Your task to perform on an android device: Add bose quietcomfort 35 to the cart on amazon.com Image 0: 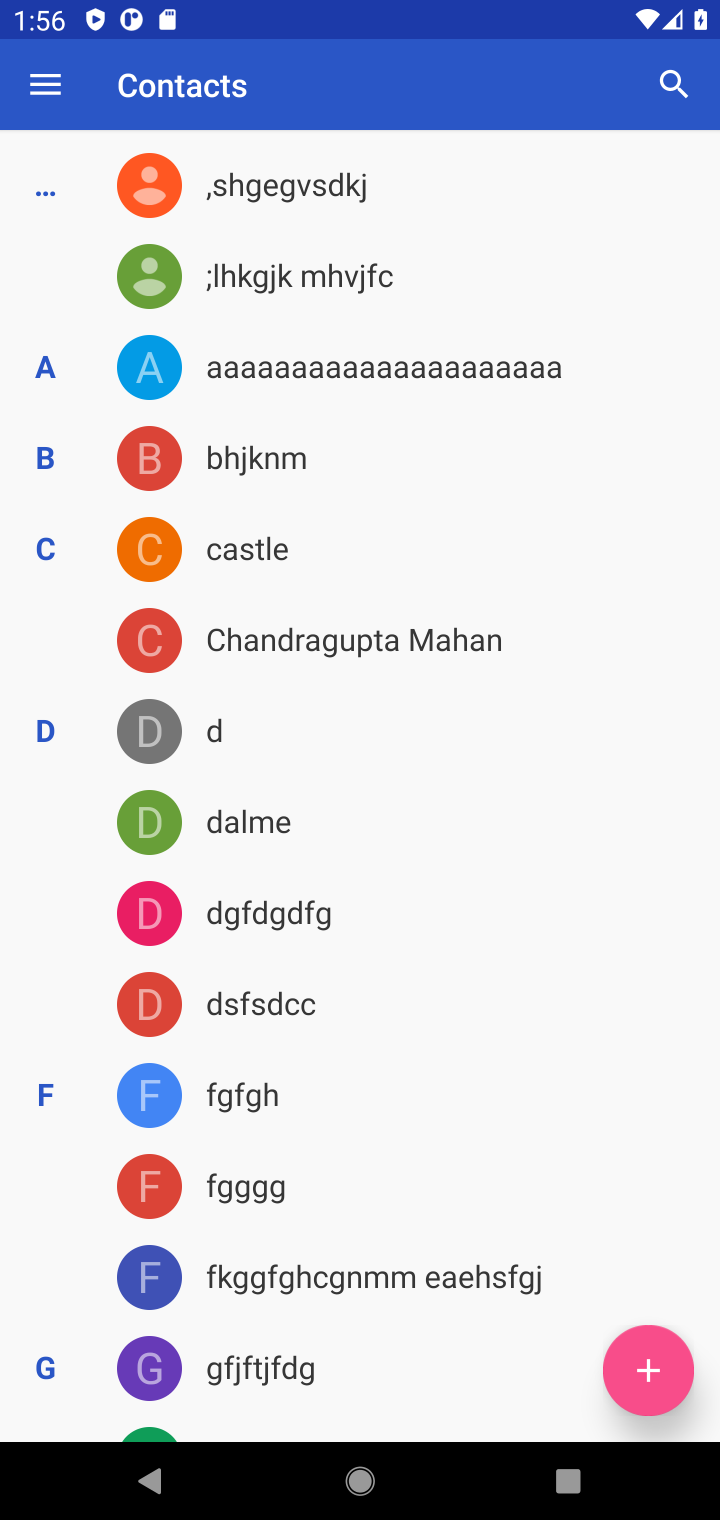
Step 0: press home button
Your task to perform on an android device: Add bose quietcomfort 35 to the cart on amazon.com Image 1: 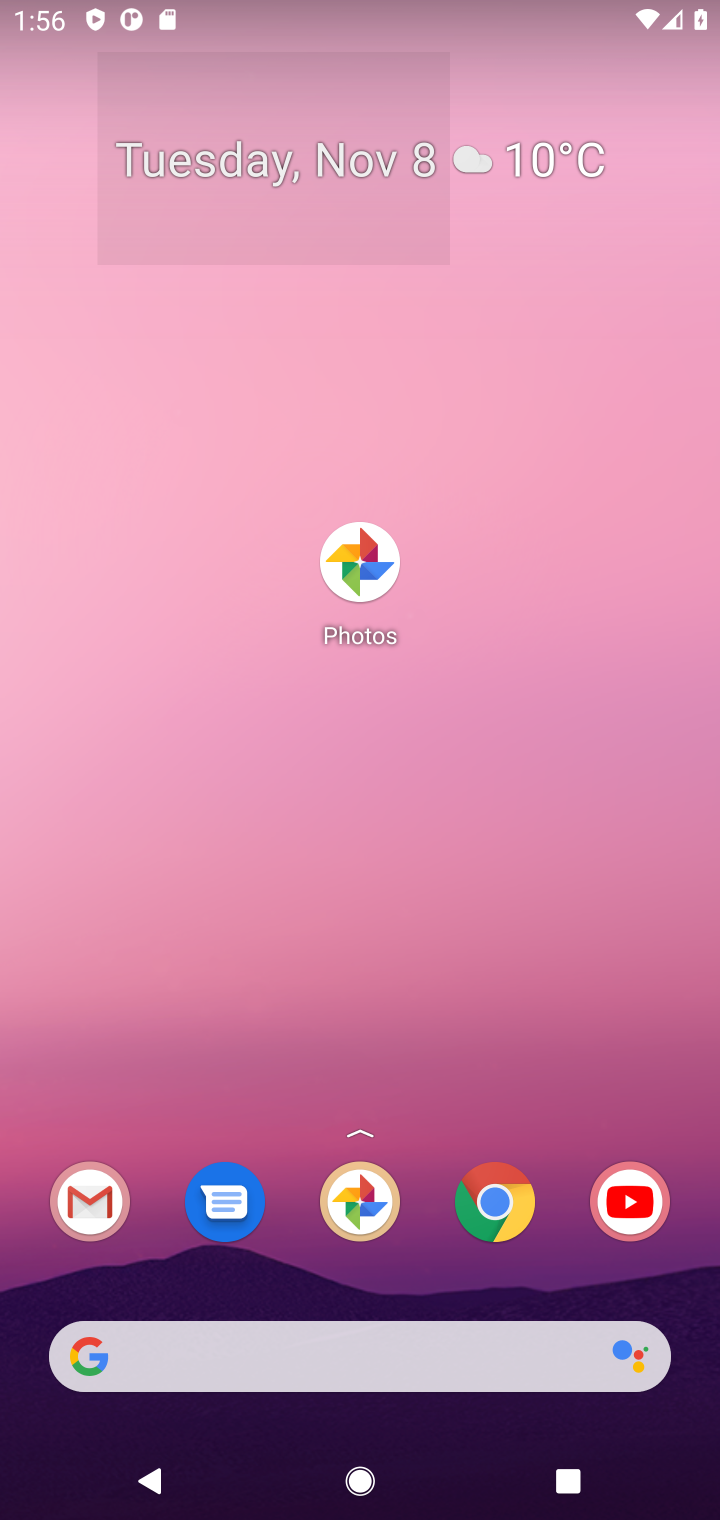
Step 1: drag from (393, 1338) to (551, 647)
Your task to perform on an android device: Add bose quietcomfort 35 to the cart on amazon.com Image 2: 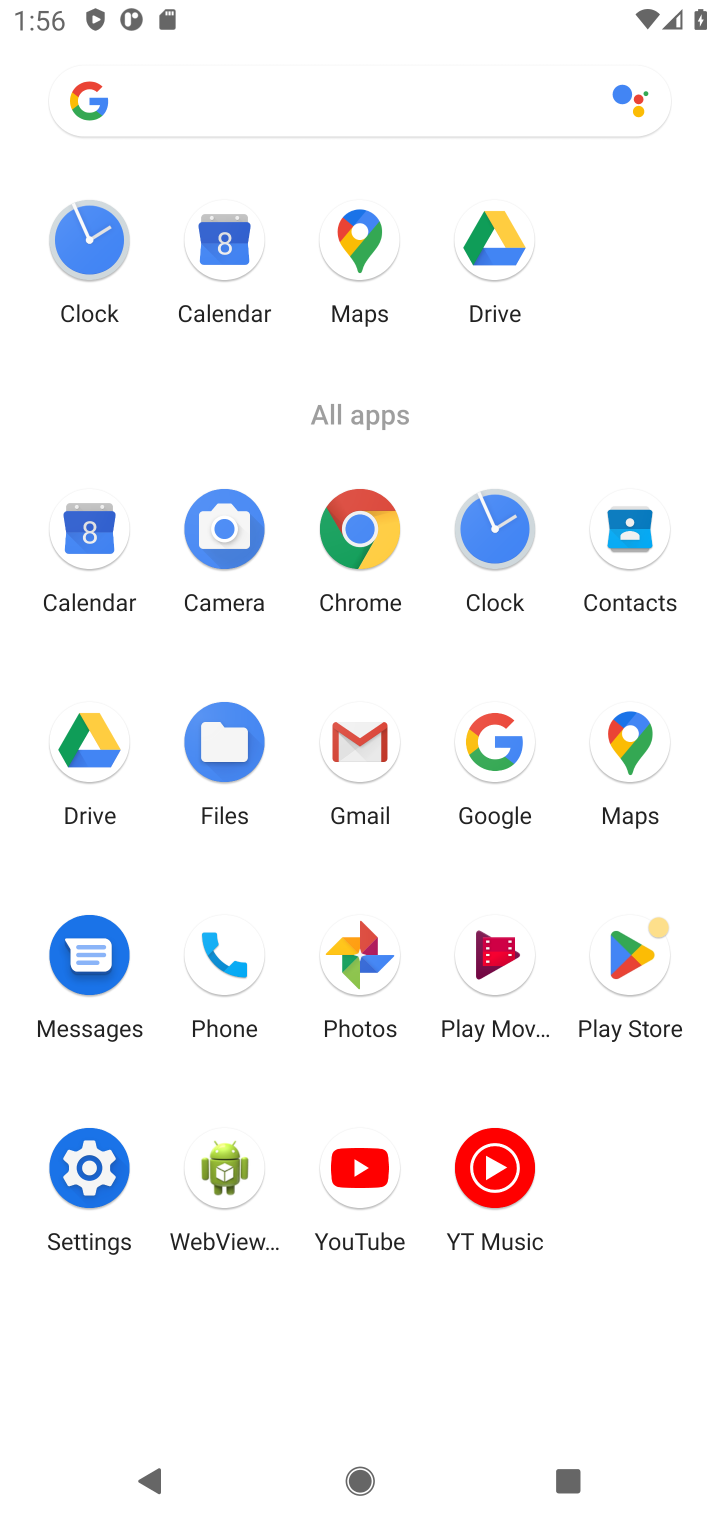
Step 2: click (494, 802)
Your task to perform on an android device: Add bose quietcomfort 35 to the cart on amazon.com Image 3: 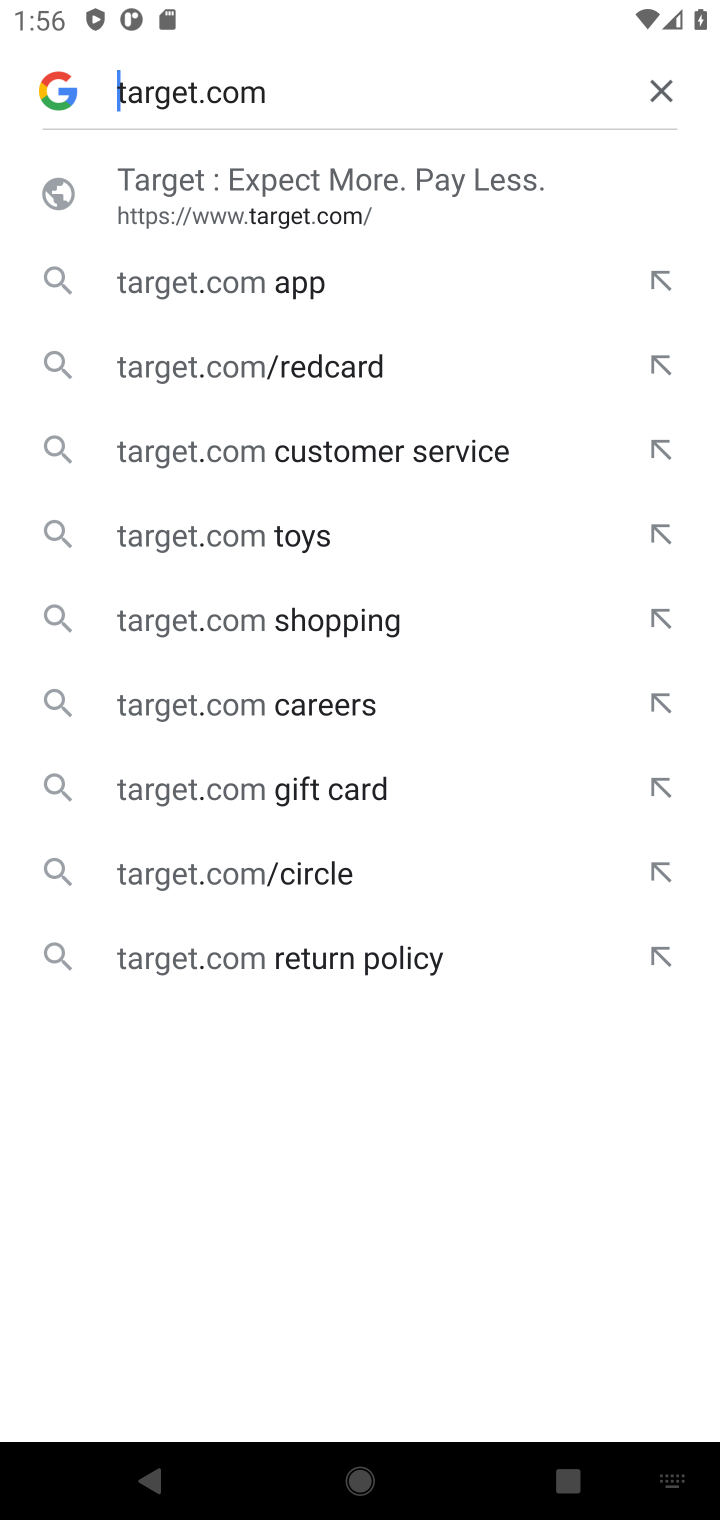
Step 3: click (669, 90)
Your task to perform on an android device: Add bose quietcomfort 35 to the cart on amazon.com Image 4: 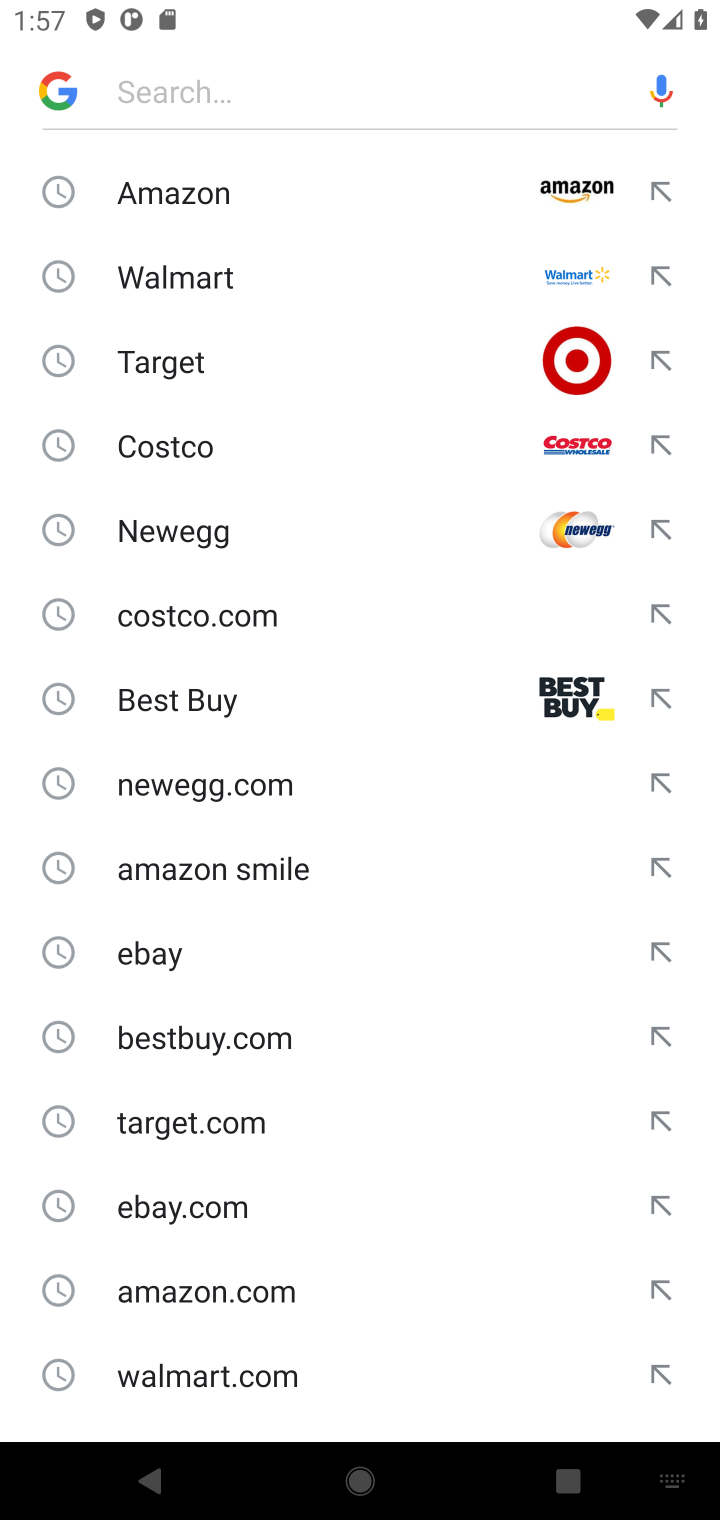
Step 4: type "bose quietcomfort 35"
Your task to perform on an android device: Add bose quietcomfort 35 to the cart on amazon.com Image 5: 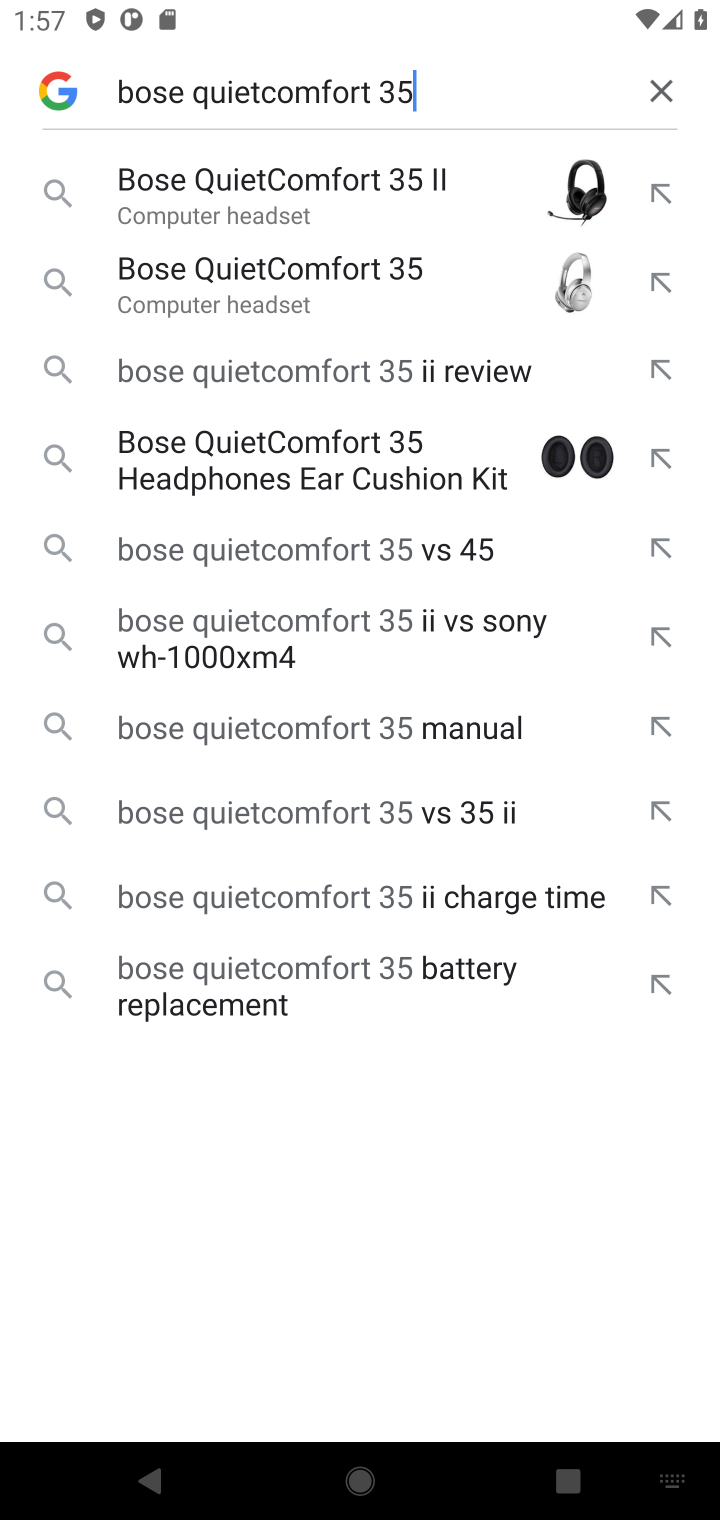
Step 5: click (667, 100)
Your task to perform on an android device: Add bose quietcomfort 35 to the cart on amazon.com Image 6: 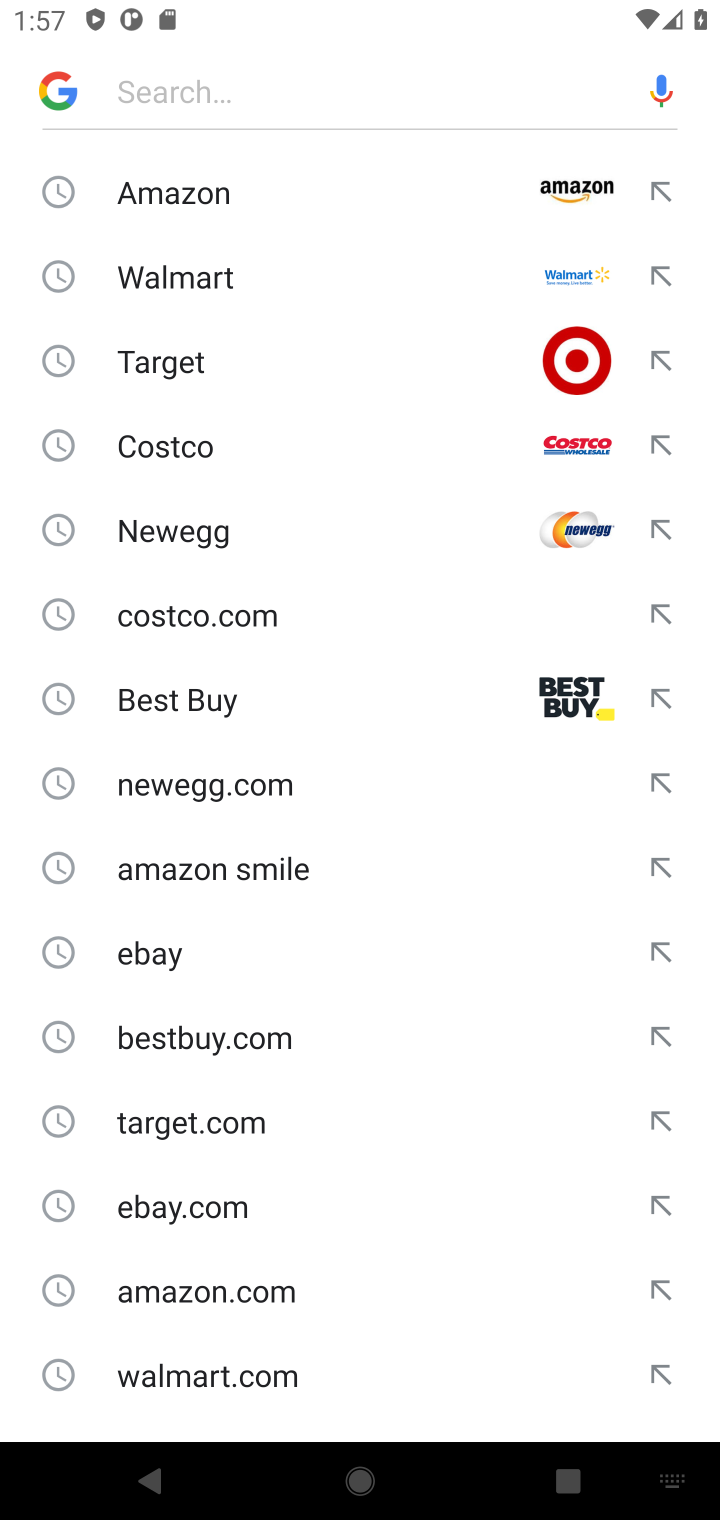
Step 6: press back button
Your task to perform on an android device: Add bose quietcomfort 35 to the cart on amazon.com Image 7: 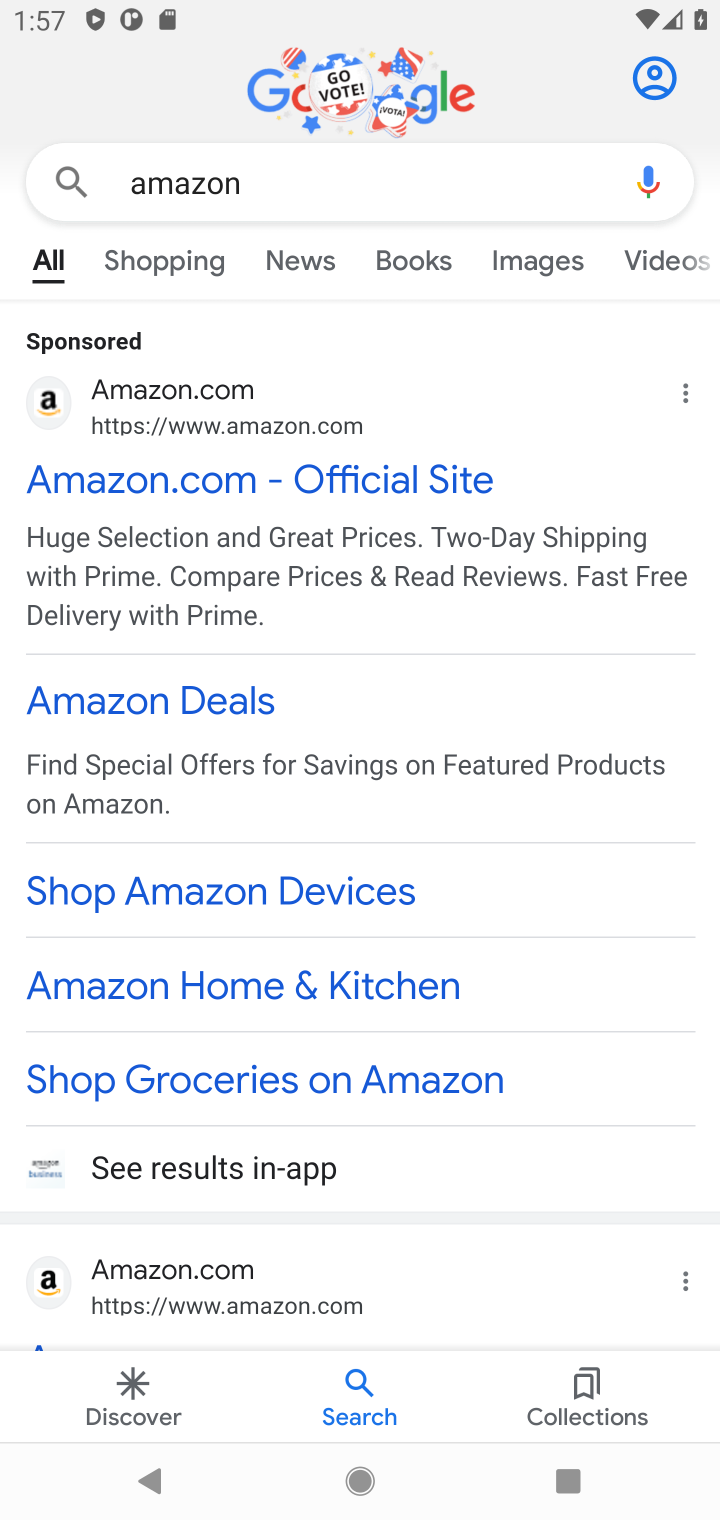
Step 7: click (465, 486)
Your task to perform on an android device: Add bose quietcomfort 35 to the cart on amazon.com Image 8: 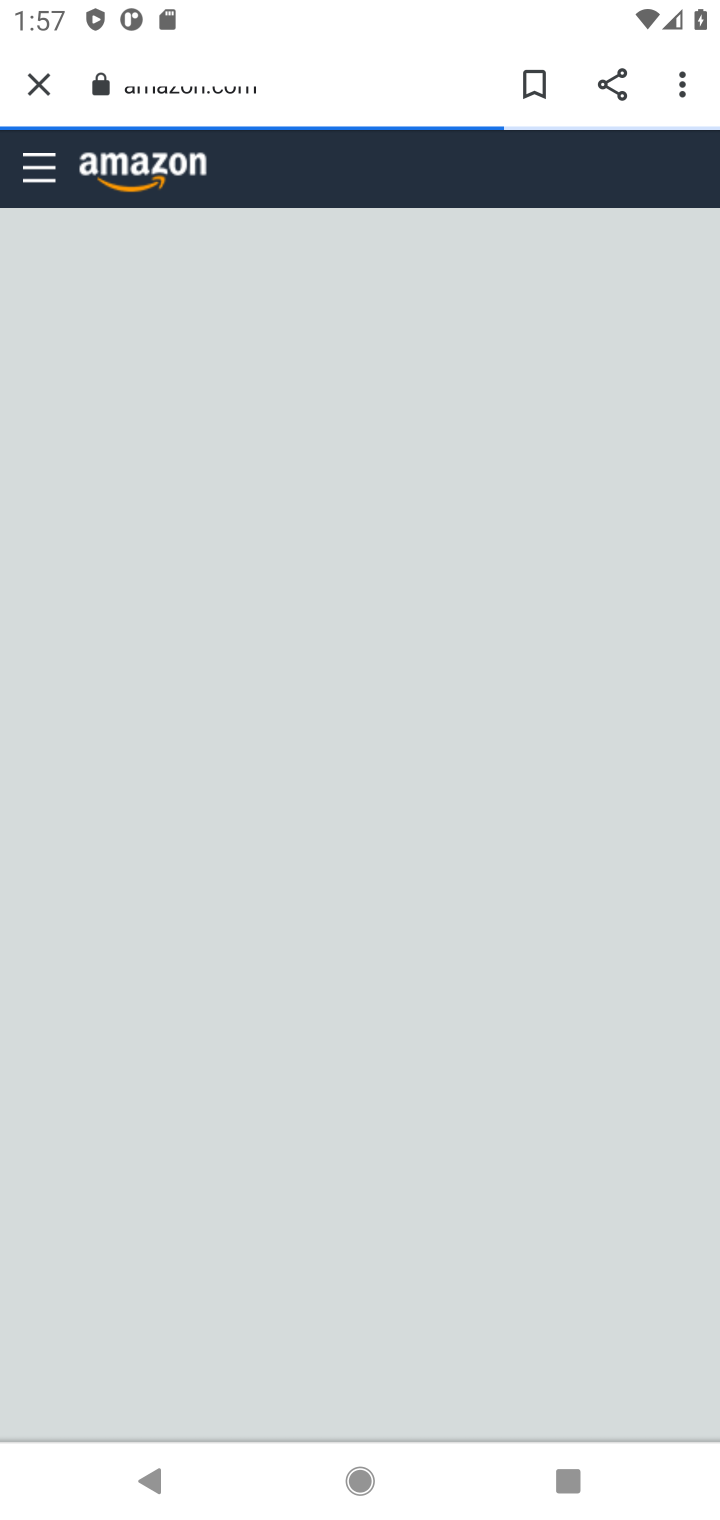
Step 8: drag from (372, 494) to (569, 549)
Your task to perform on an android device: Add bose quietcomfort 35 to the cart on amazon.com Image 9: 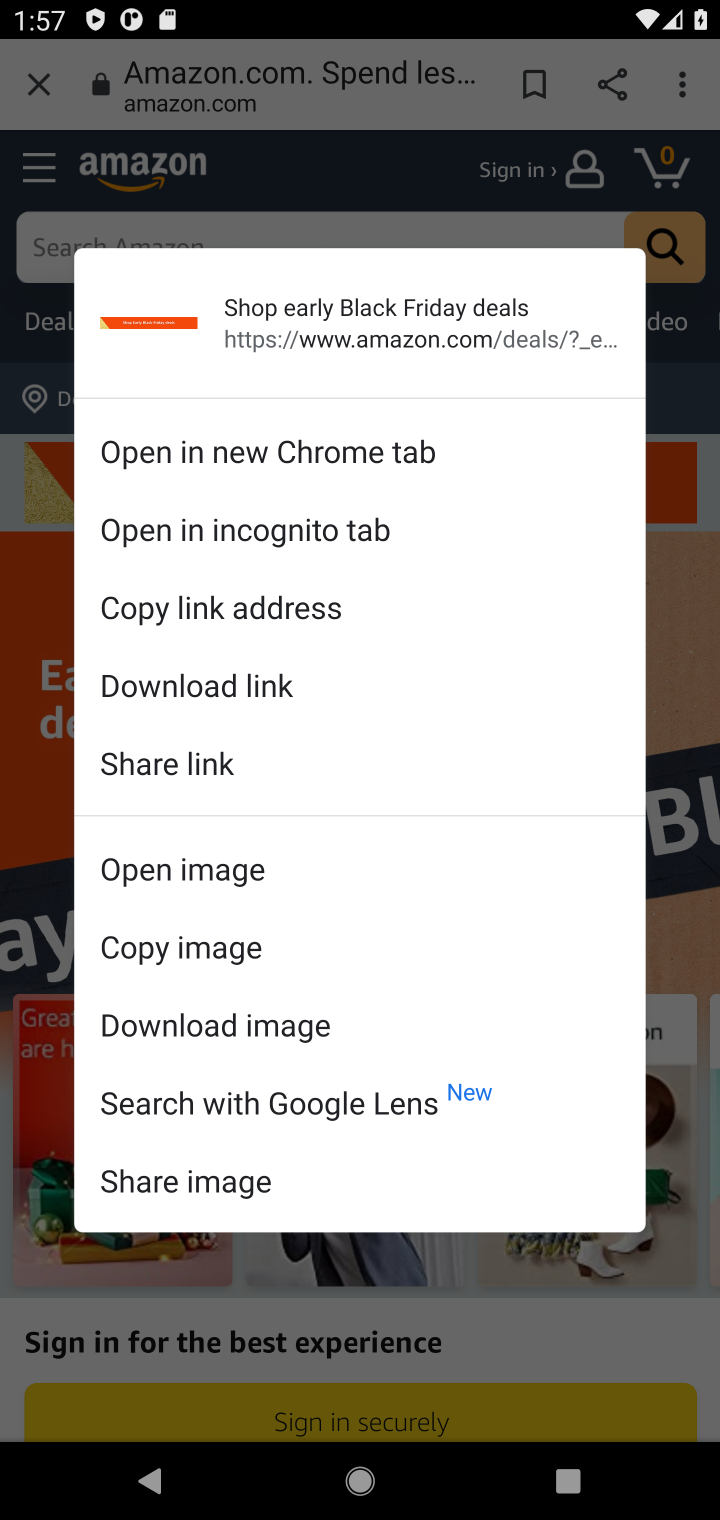
Step 9: click (675, 526)
Your task to perform on an android device: Add bose quietcomfort 35 to the cart on amazon.com Image 10: 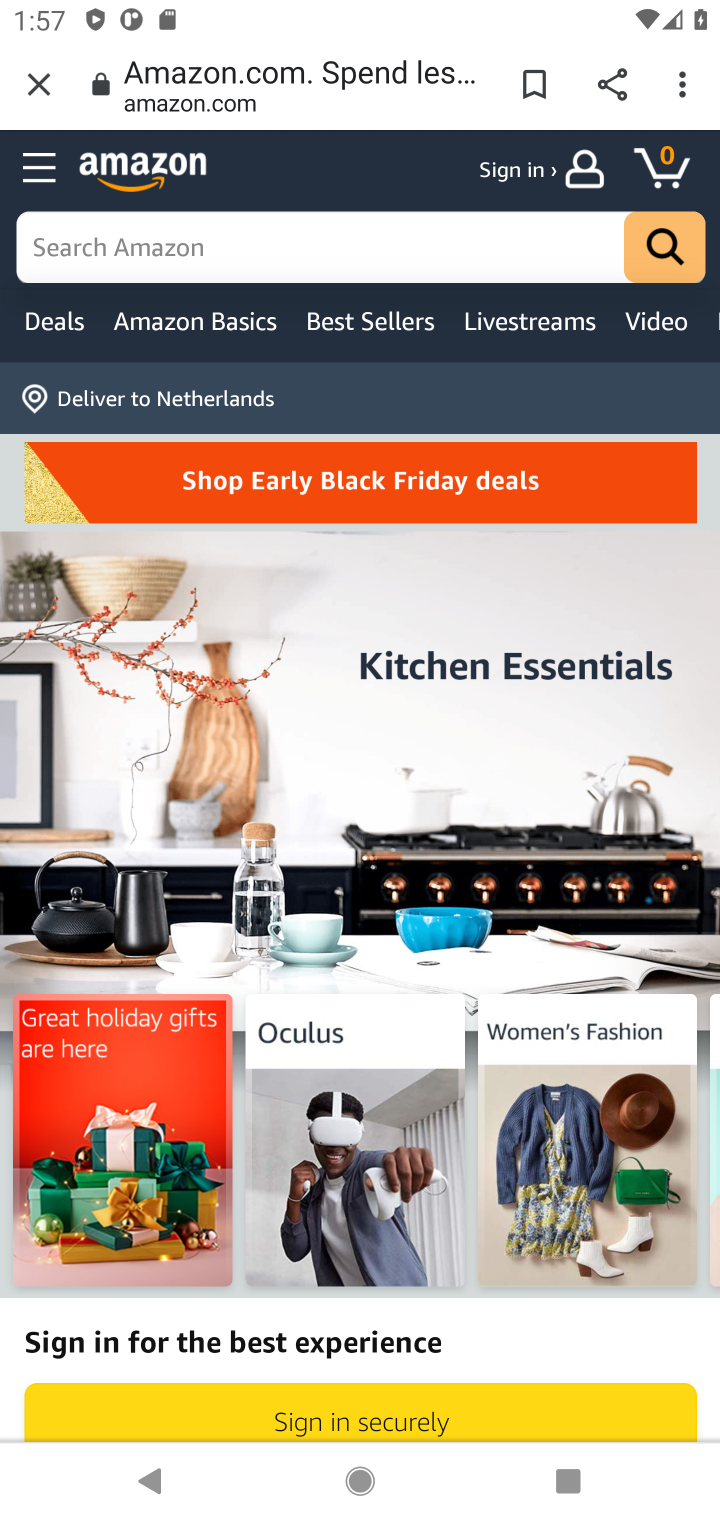
Step 10: click (351, 247)
Your task to perform on an android device: Add bose quietcomfort 35 to the cart on amazon.com Image 11: 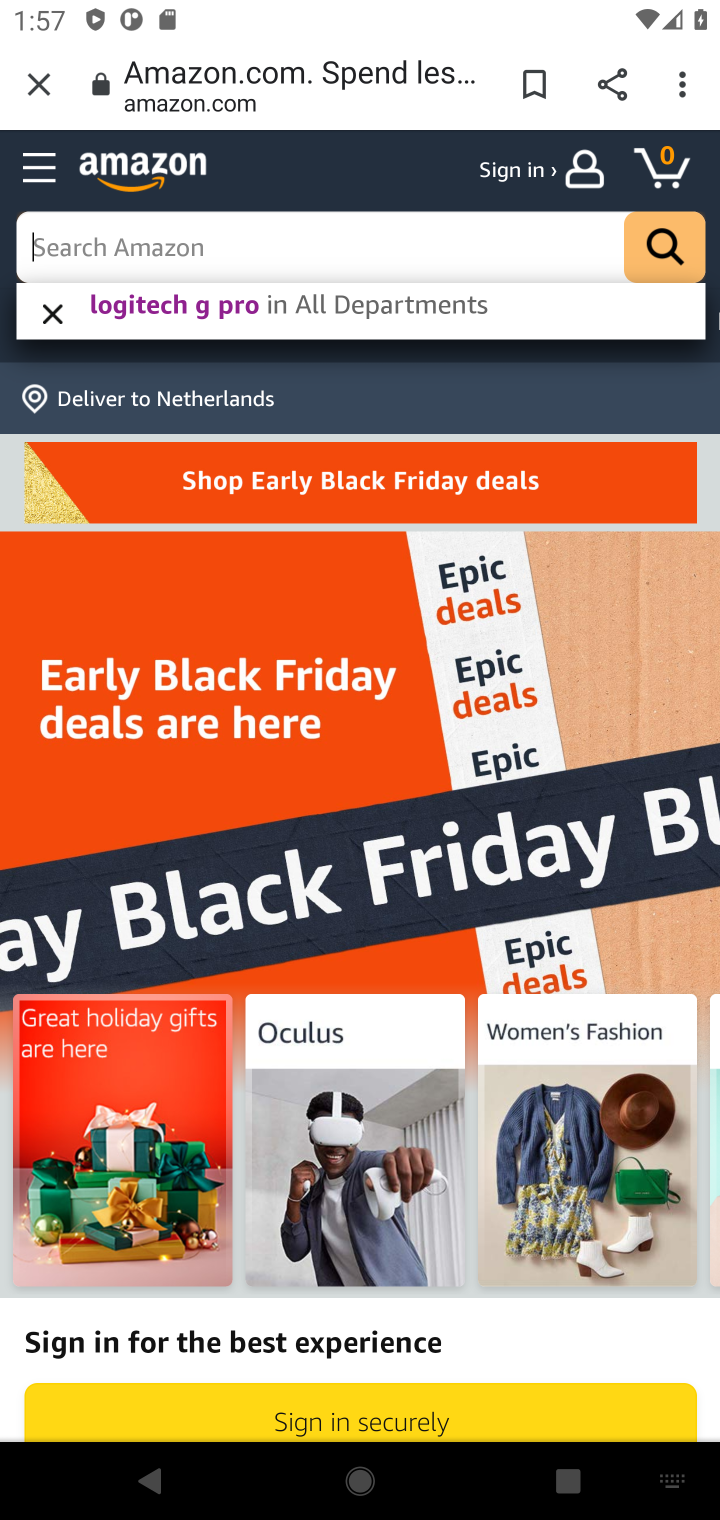
Step 11: type "bose quietcomfort 35"
Your task to perform on an android device: Add bose quietcomfort 35 to the cart on amazon.com Image 12: 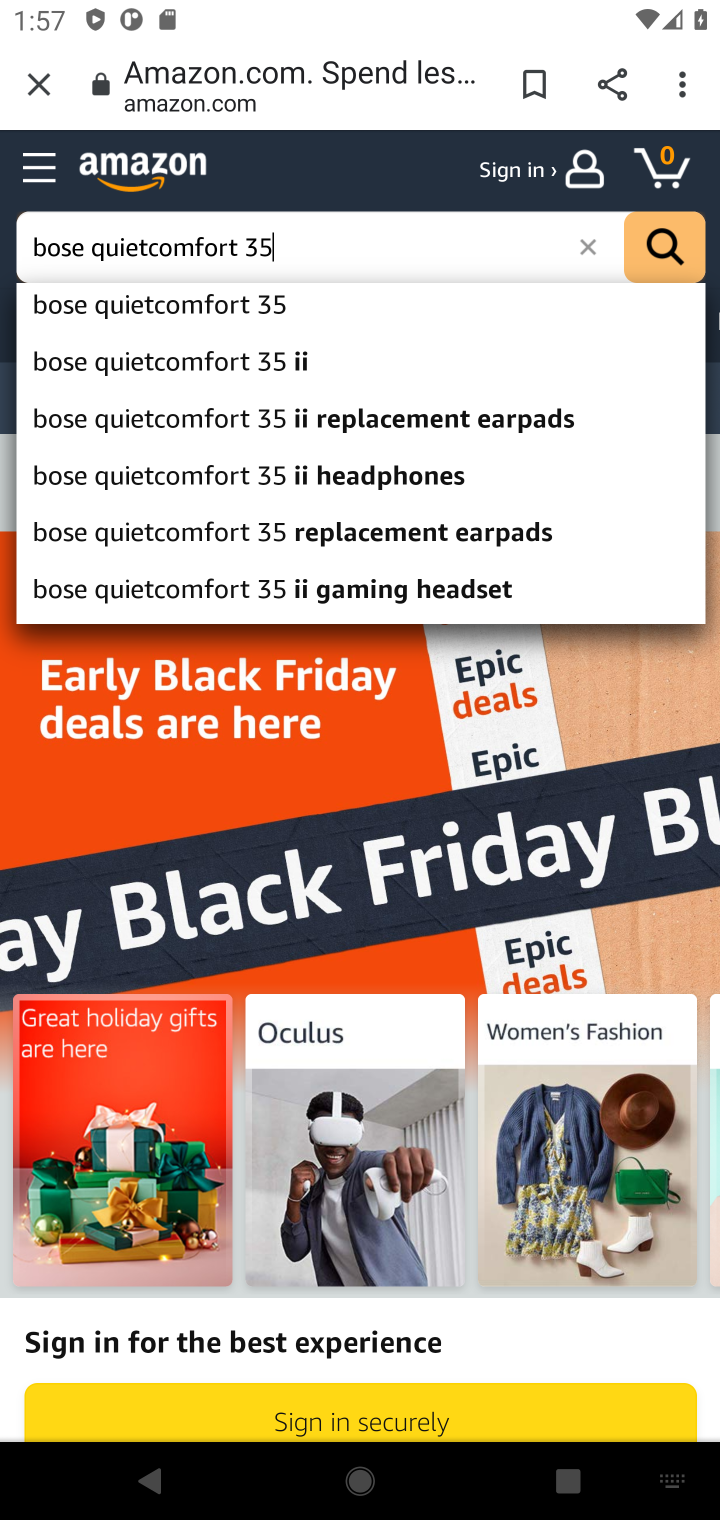
Step 12: click (240, 317)
Your task to perform on an android device: Add bose quietcomfort 35 to the cart on amazon.com Image 13: 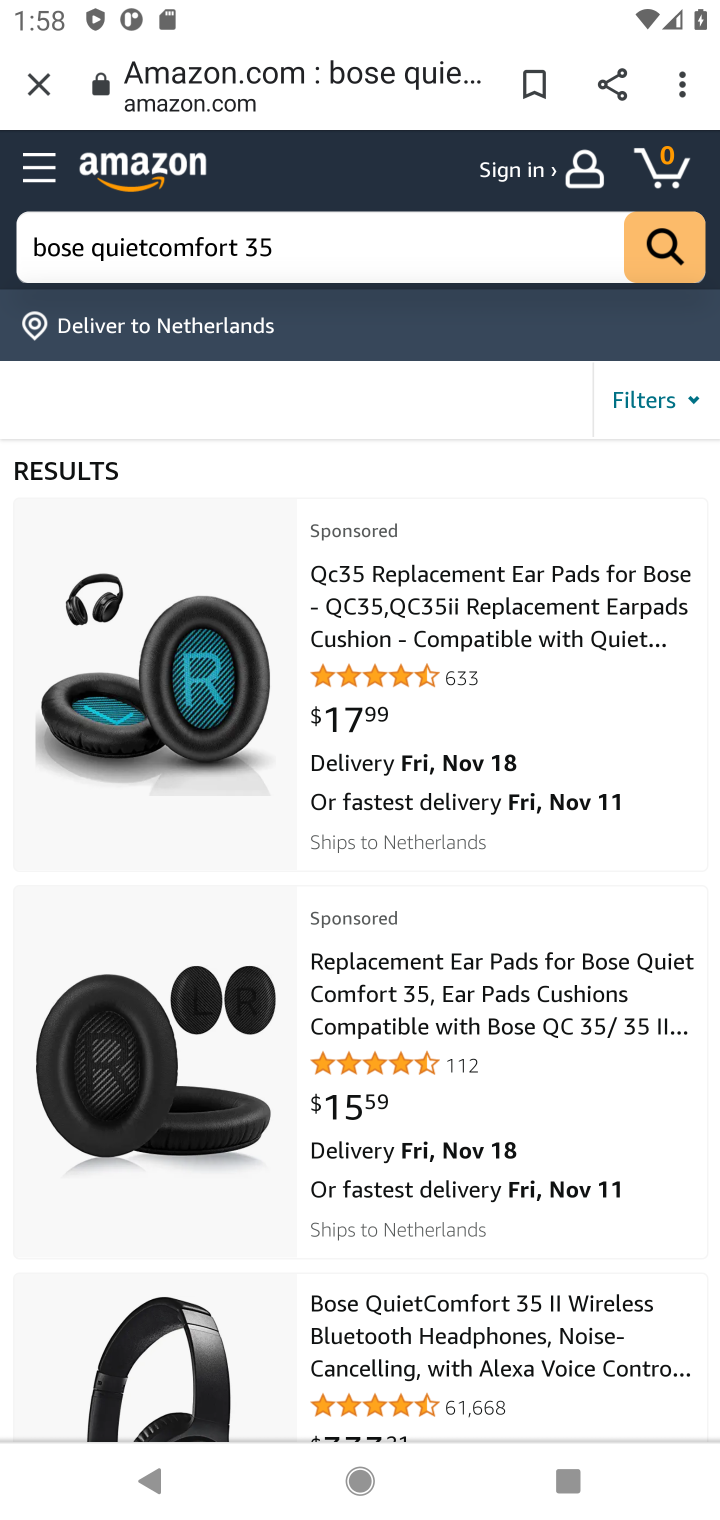
Step 13: click (354, 633)
Your task to perform on an android device: Add bose quietcomfort 35 to the cart on amazon.com Image 14: 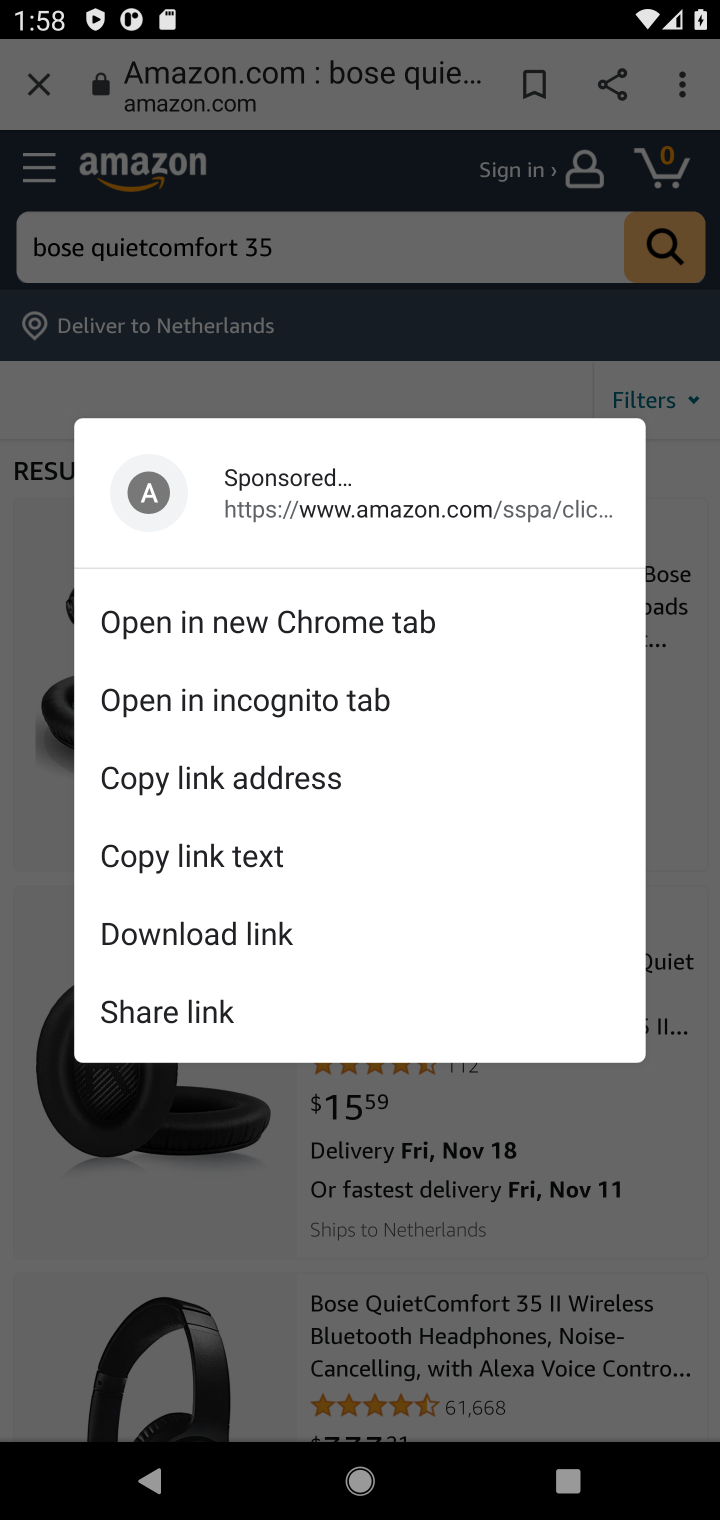
Step 14: click (539, 1128)
Your task to perform on an android device: Add bose quietcomfort 35 to the cart on amazon.com Image 15: 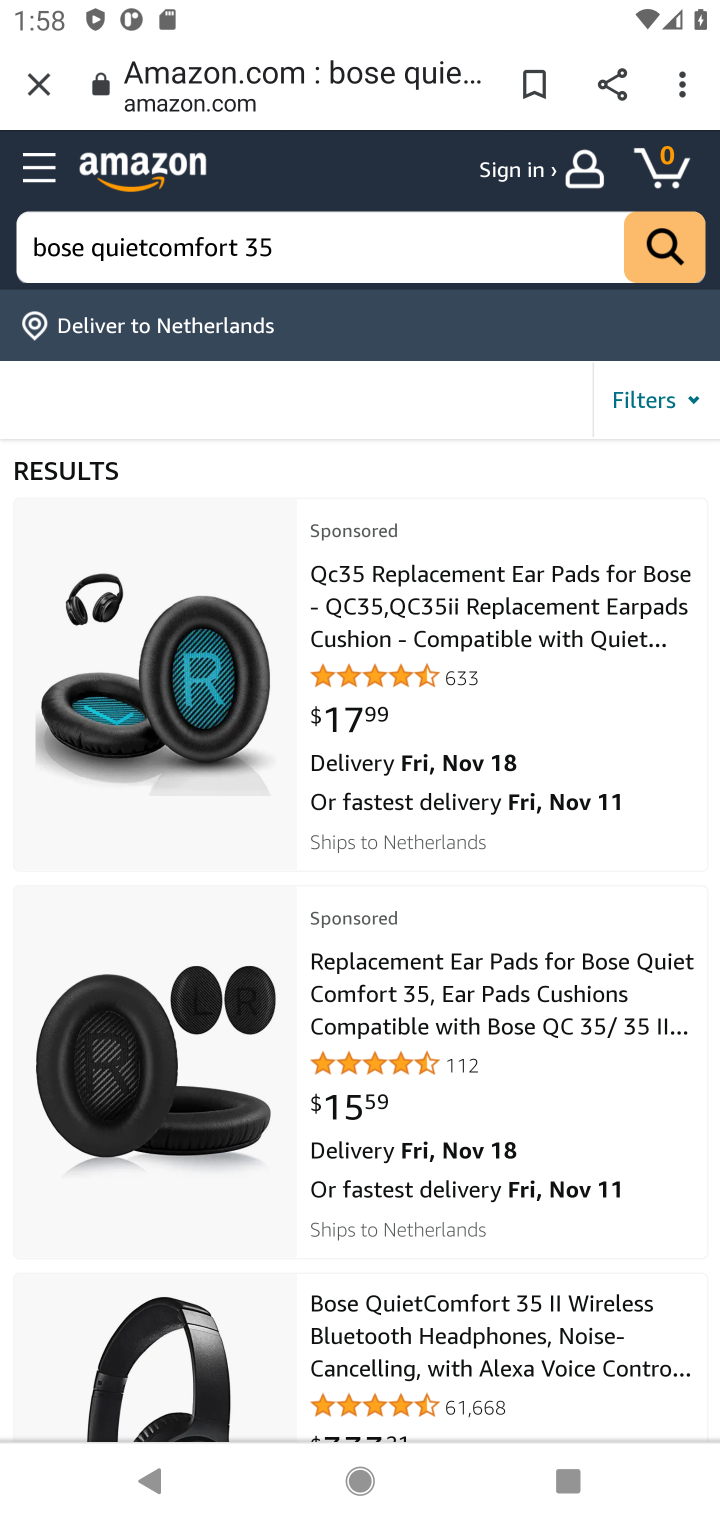
Step 15: click (535, 565)
Your task to perform on an android device: Add bose quietcomfort 35 to the cart on amazon.com Image 16: 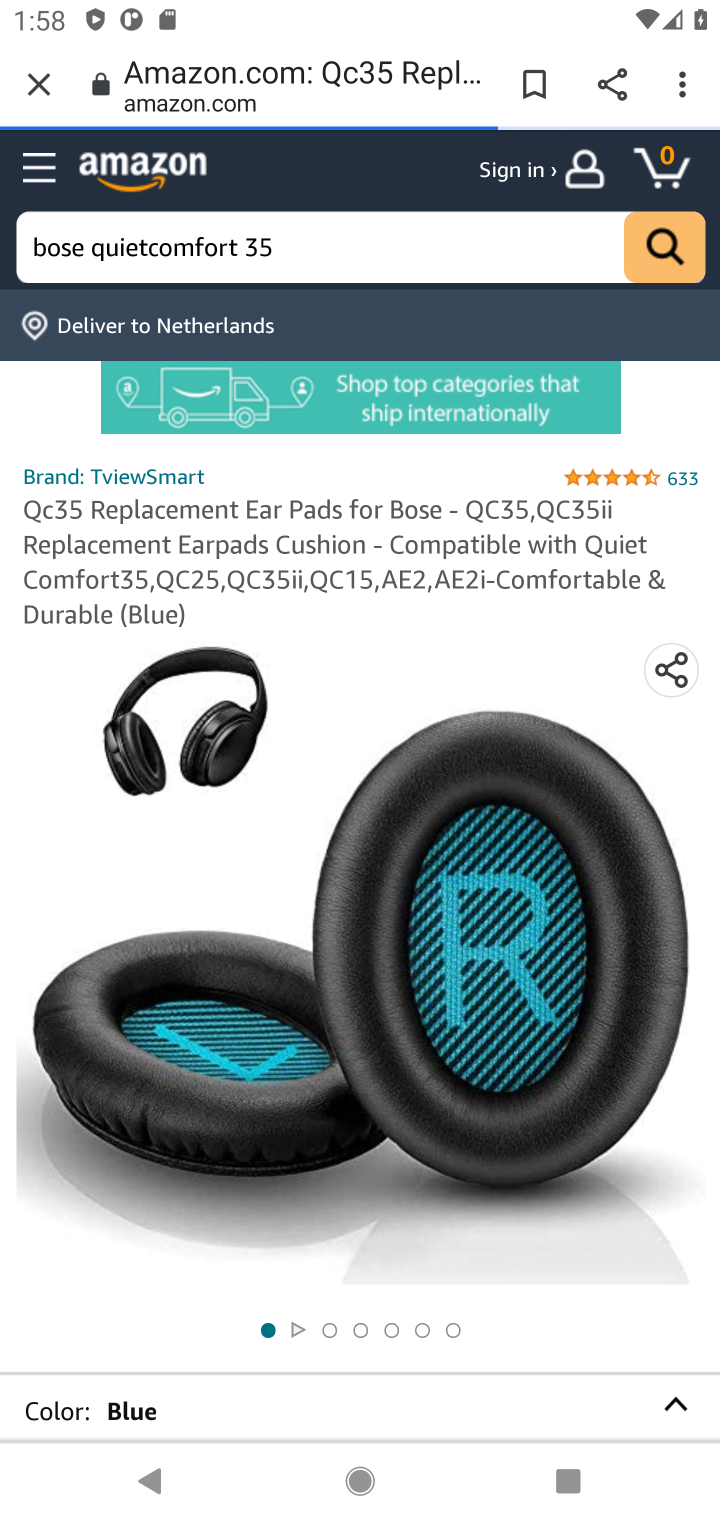
Step 16: drag from (382, 1244) to (491, 813)
Your task to perform on an android device: Add bose quietcomfort 35 to the cart on amazon.com Image 17: 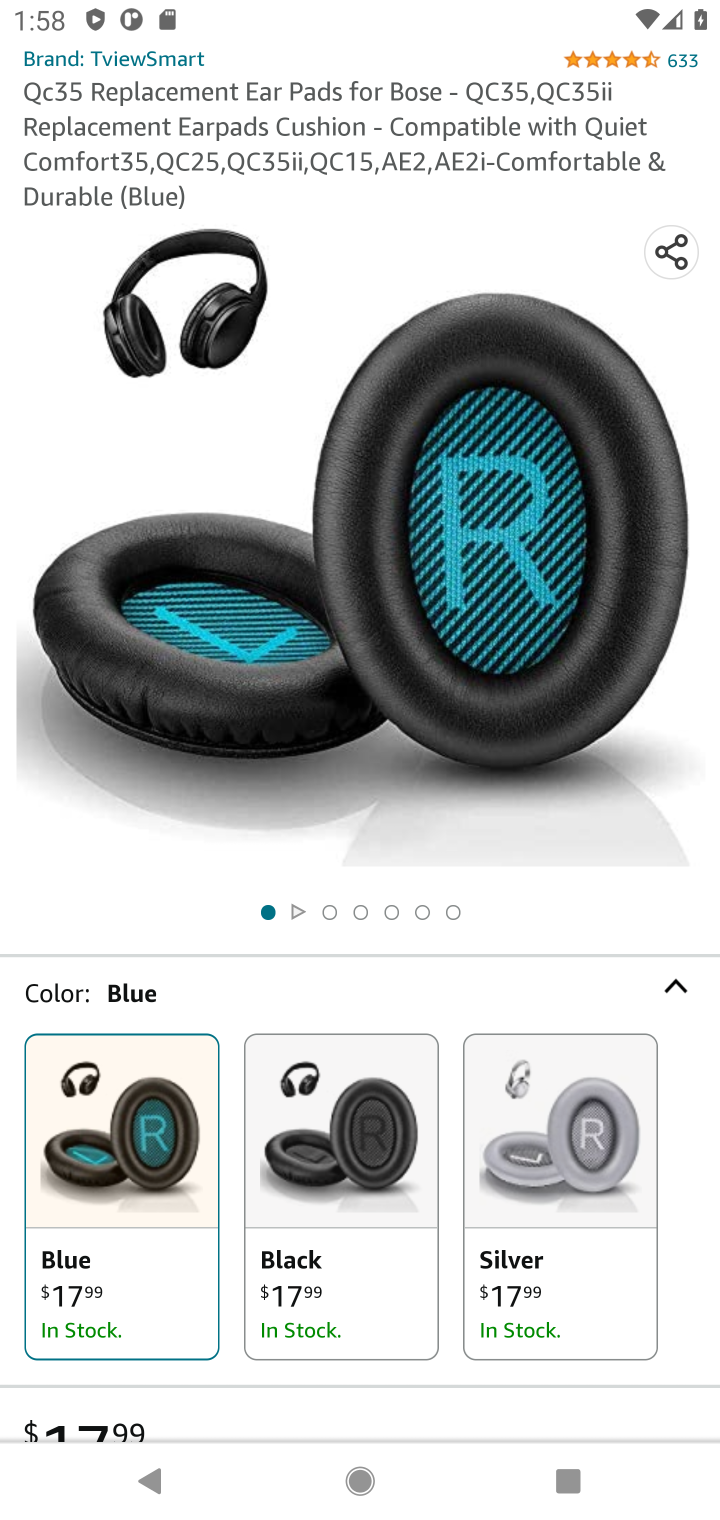
Step 17: drag from (488, 1256) to (534, 785)
Your task to perform on an android device: Add bose quietcomfort 35 to the cart on amazon.com Image 18: 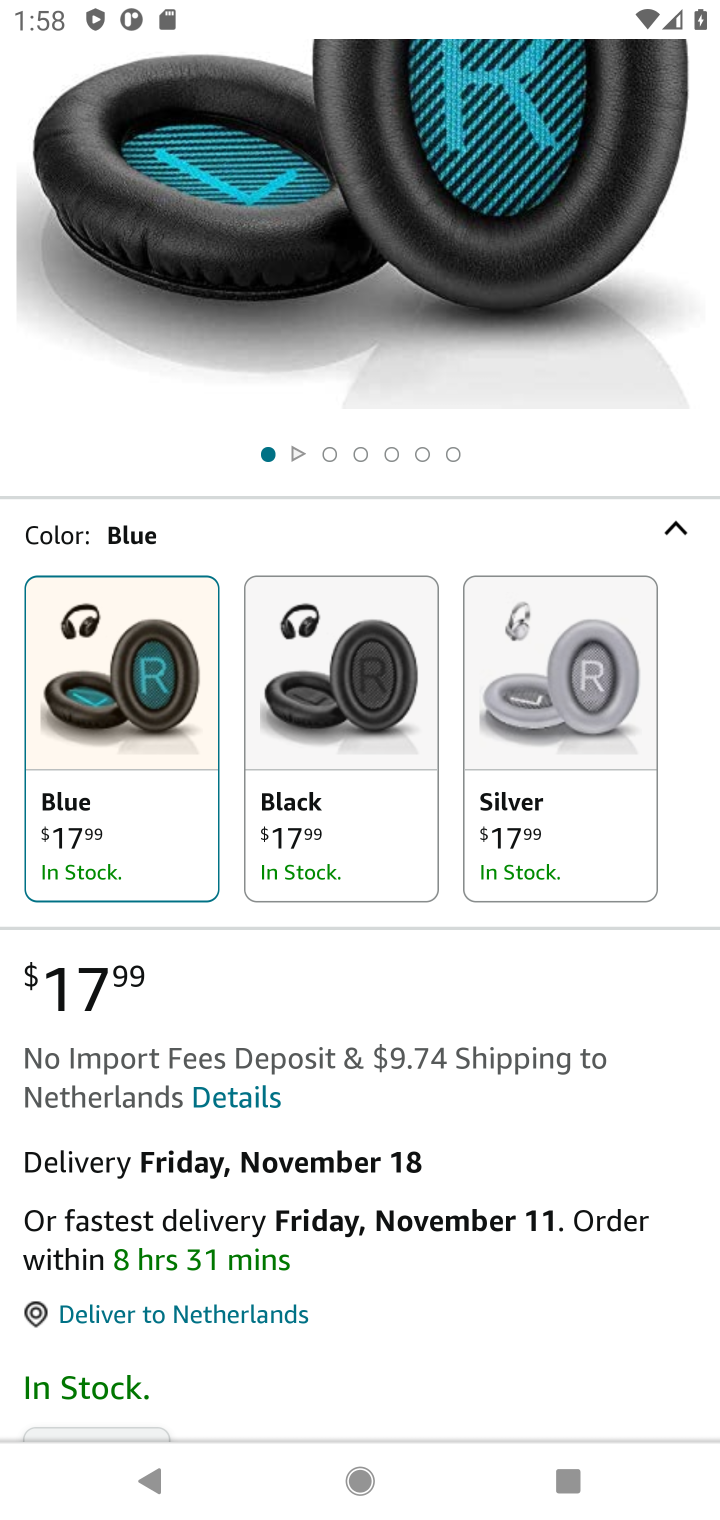
Step 18: click (518, 536)
Your task to perform on an android device: Add bose quietcomfort 35 to the cart on amazon.com Image 19: 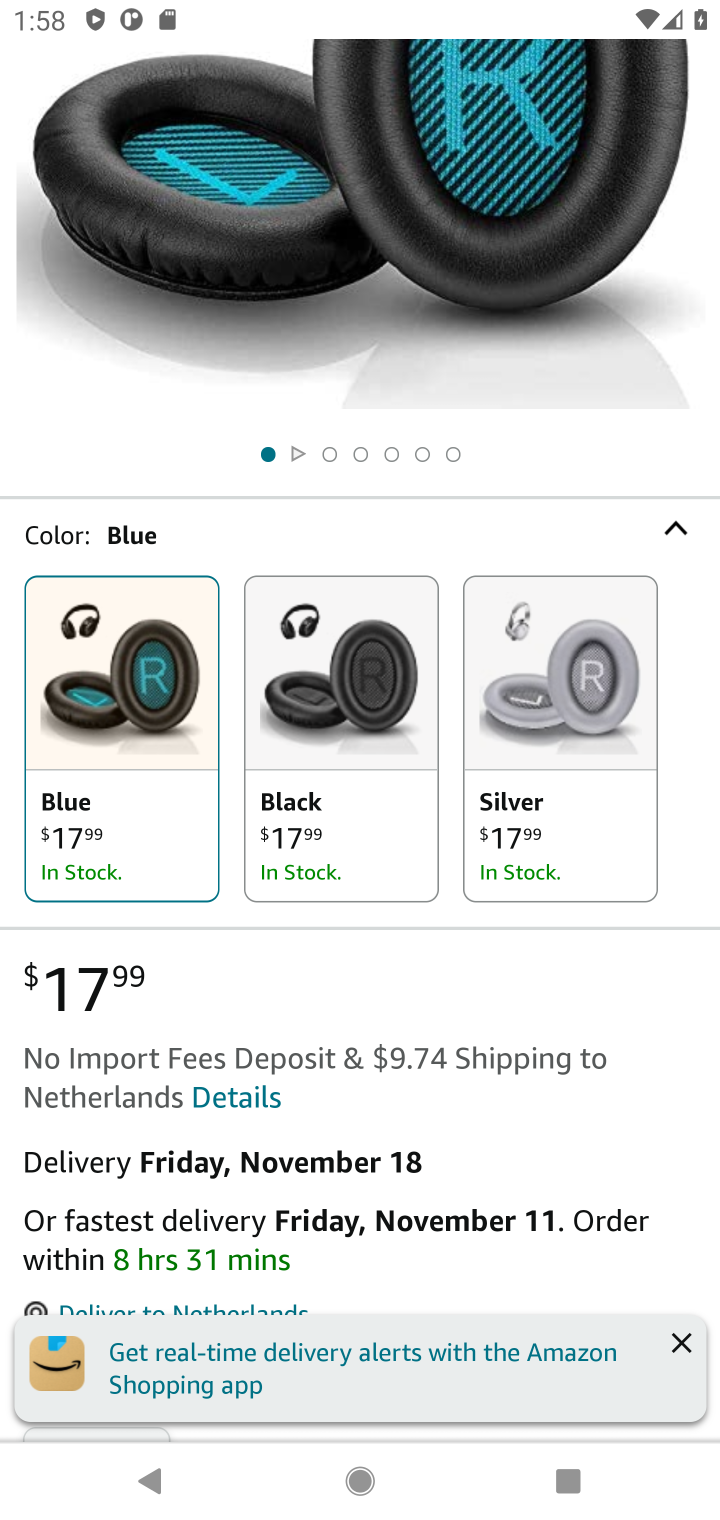
Step 19: drag from (487, 1024) to (525, 709)
Your task to perform on an android device: Add bose quietcomfort 35 to the cart on amazon.com Image 20: 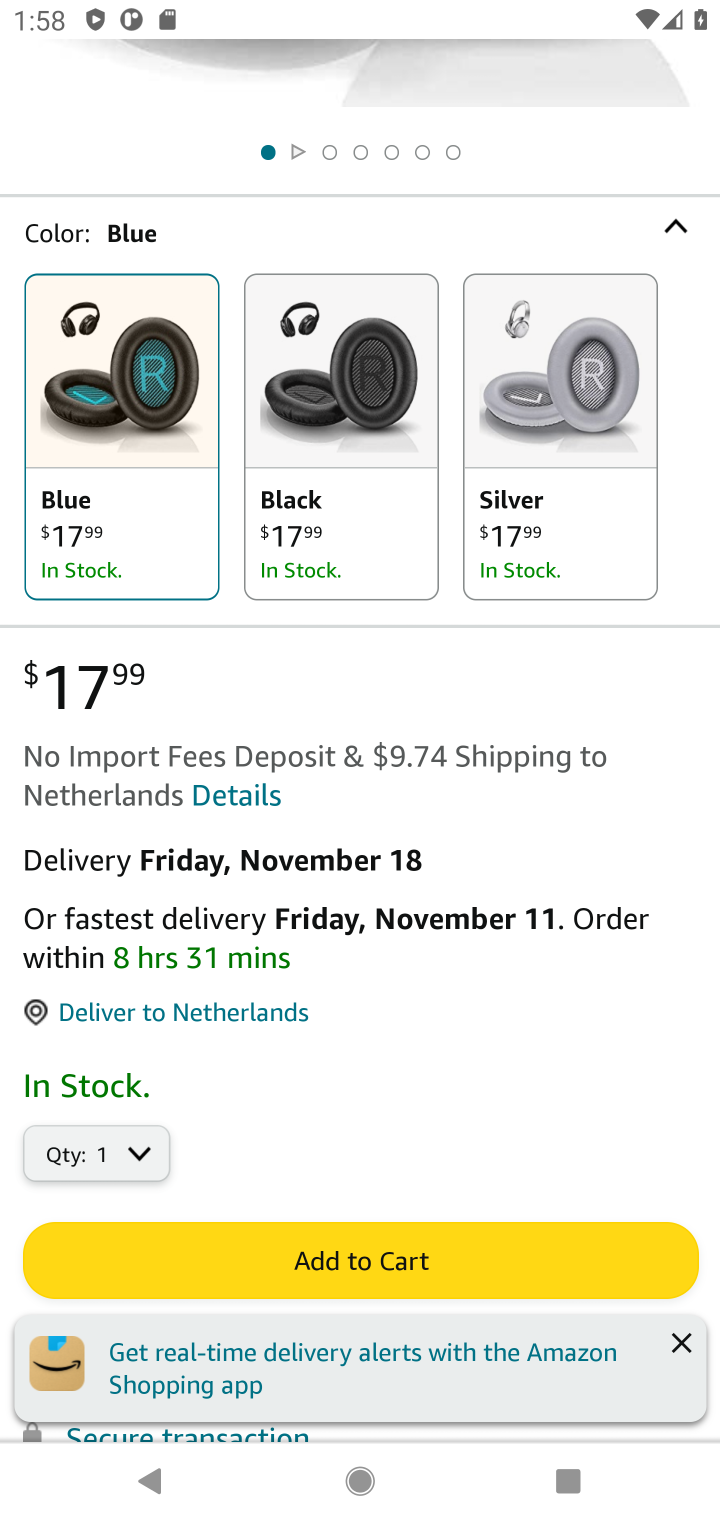
Step 20: click (435, 1261)
Your task to perform on an android device: Add bose quietcomfort 35 to the cart on amazon.com Image 21: 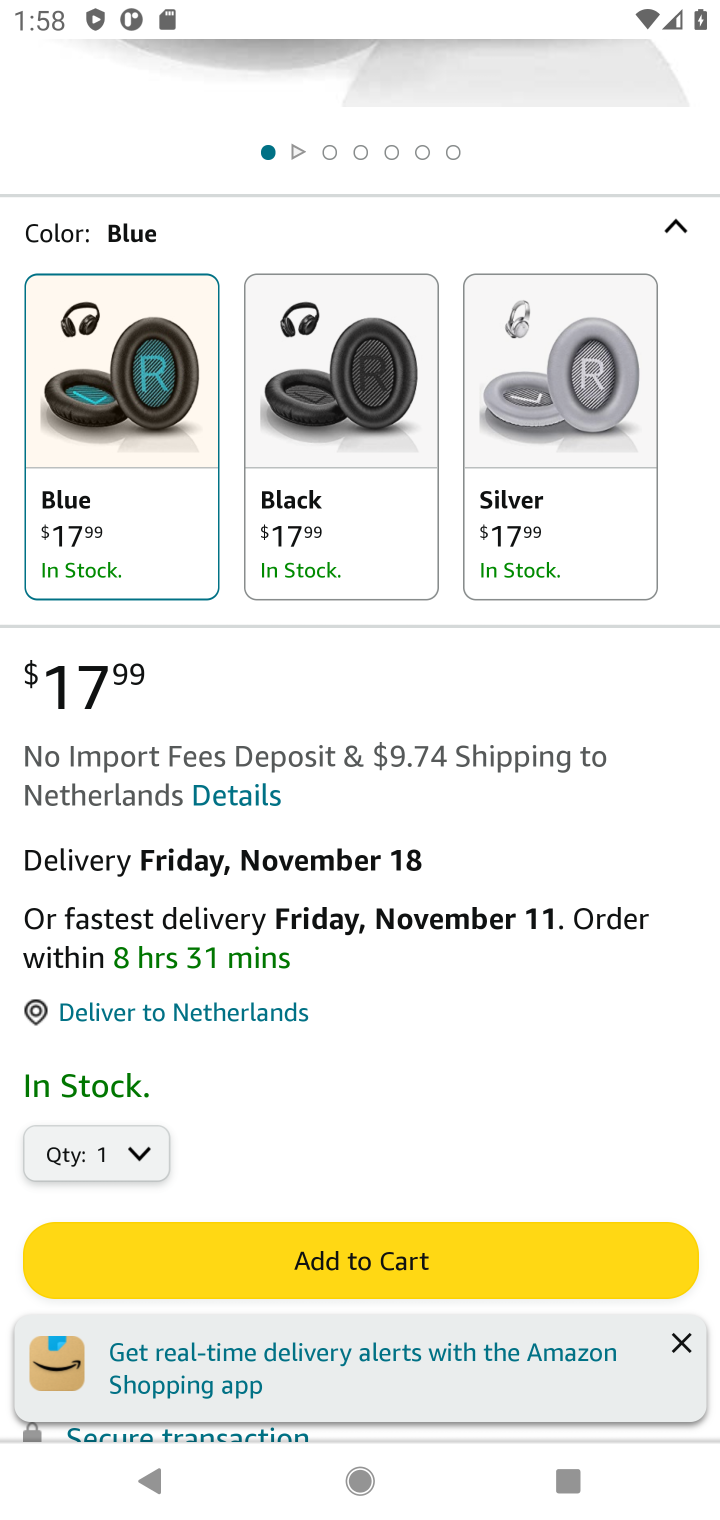
Step 21: click (435, 1261)
Your task to perform on an android device: Add bose quietcomfort 35 to the cart on amazon.com Image 22: 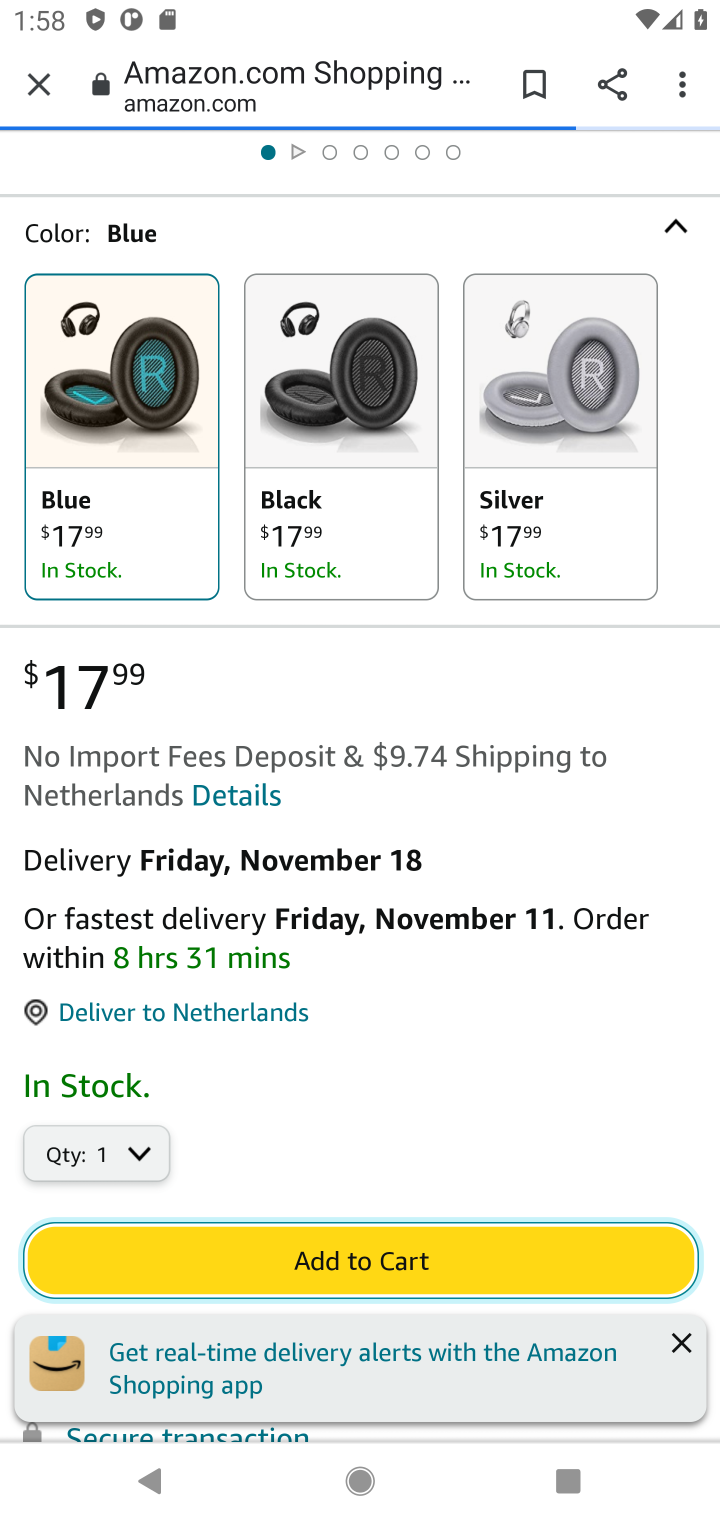
Step 22: click (605, 1000)
Your task to perform on an android device: Add bose quietcomfort 35 to the cart on amazon.com Image 23: 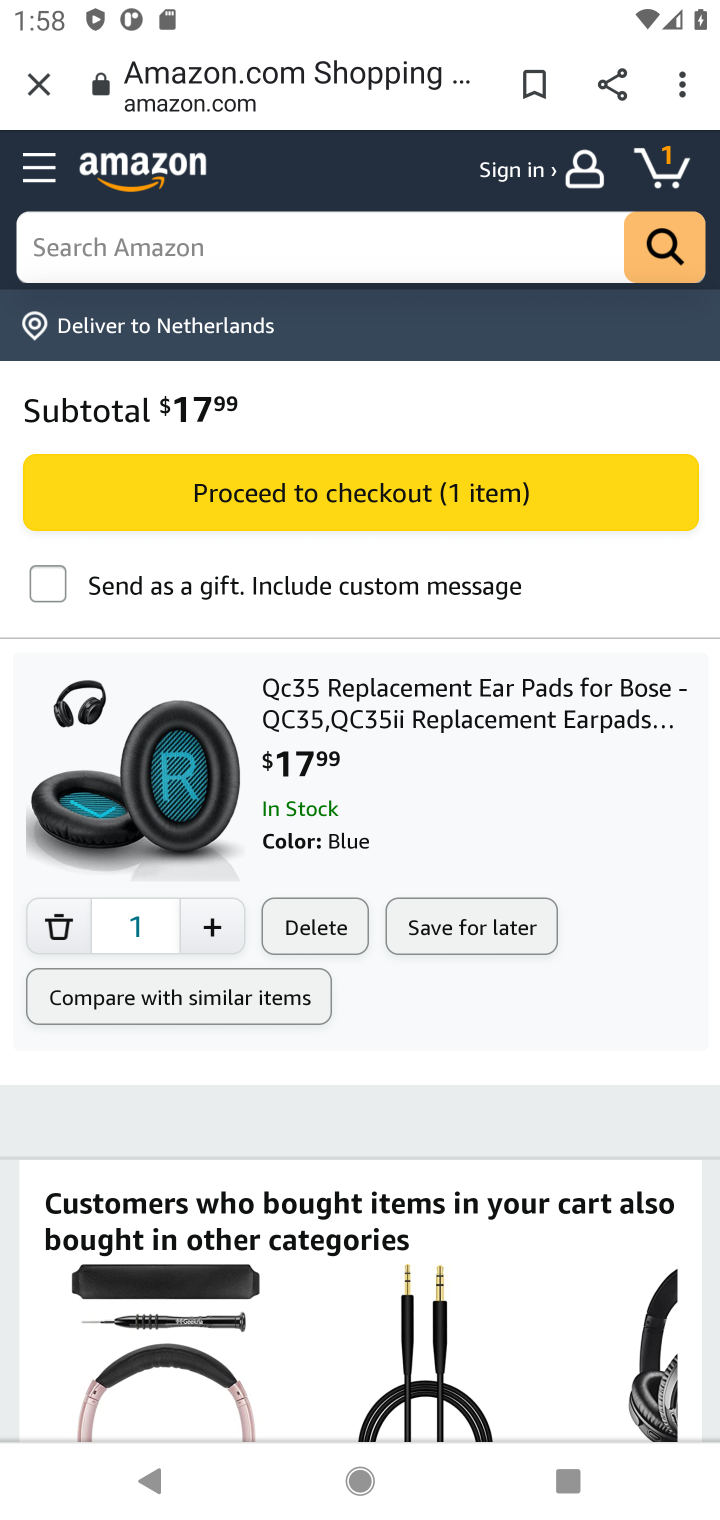
Step 23: task complete